Your task to perform on an android device: check battery use Image 0: 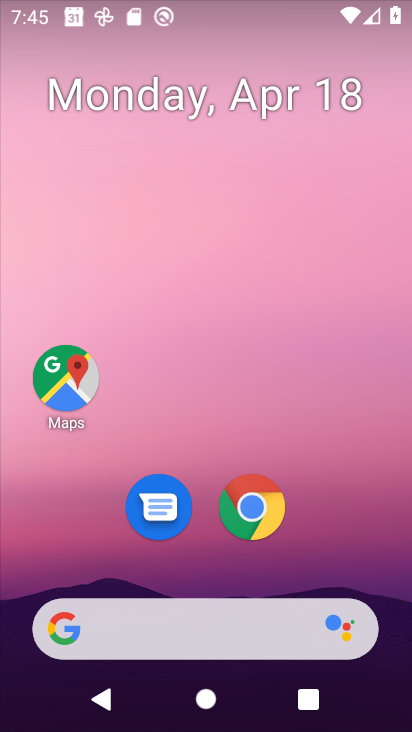
Step 0: drag from (3, 532) to (248, 117)
Your task to perform on an android device: check battery use Image 1: 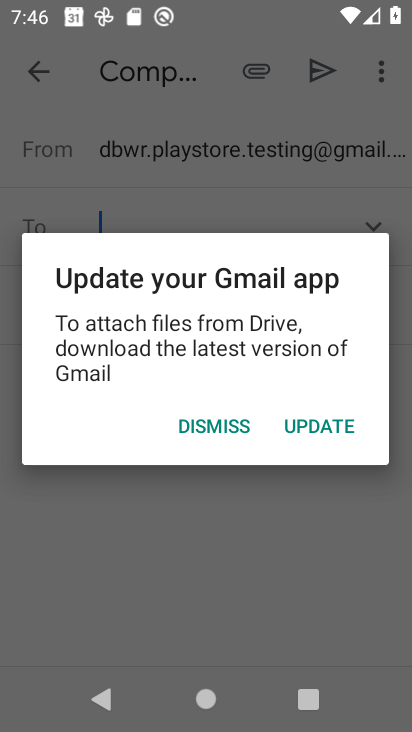
Step 1: press home button
Your task to perform on an android device: check battery use Image 2: 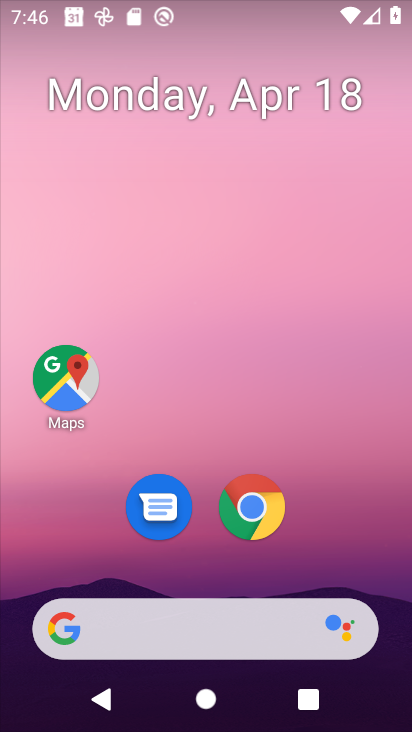
Step 2: drag from (12, 521) to (237, 18)
Your task to perform on an android device: check battery use Image 3: 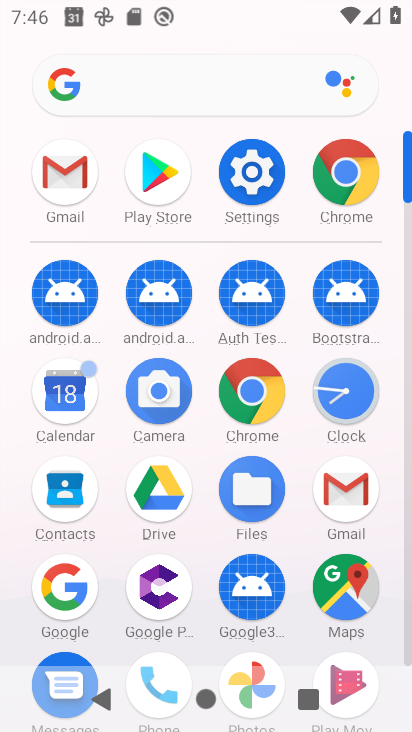
Step 3: click (251, 167)
Your task to perform on an android device: check battery use Image 4: 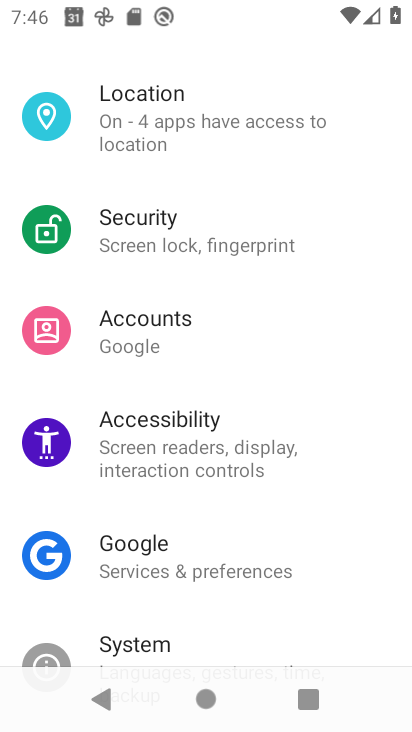
Step 4: drag from (252, 164) to (229, 606)
Your task to perform on an android device: check battery use Image 5: 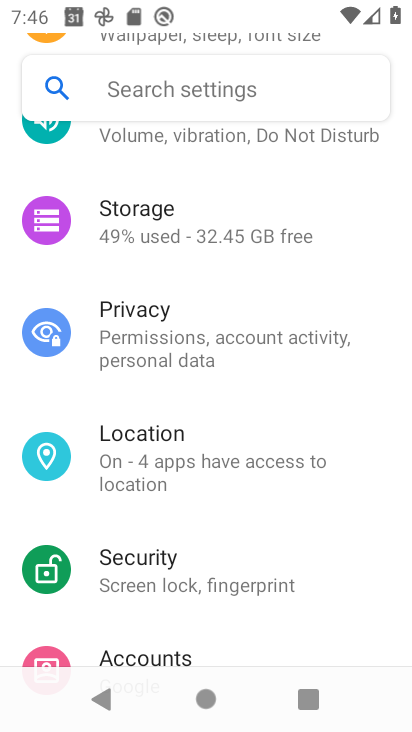
Step 5: drag from (213, 222) to (204, 589)
Your task to perform on an android device: check battery use Image 6: 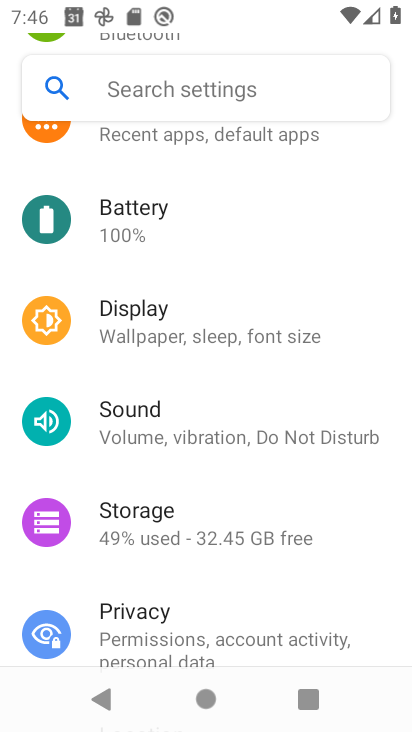
Step 6: click (189, 230)
Your task to perform on an android device: check battery use Image 7: 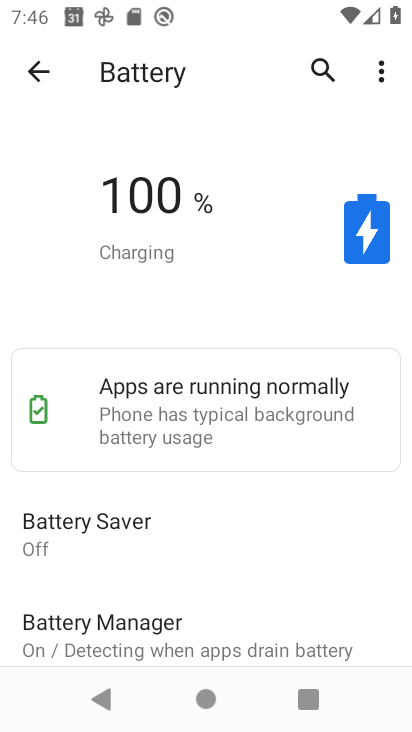
Step 7: click (388, 63)
Your task to perform on an android device: check battery use Image 8: 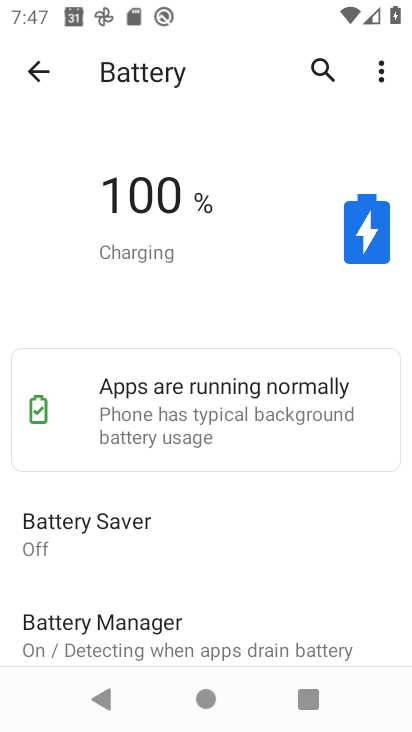
Step 8: click (379, 69)
Your task to perform on an android device: check battery use Image 9: 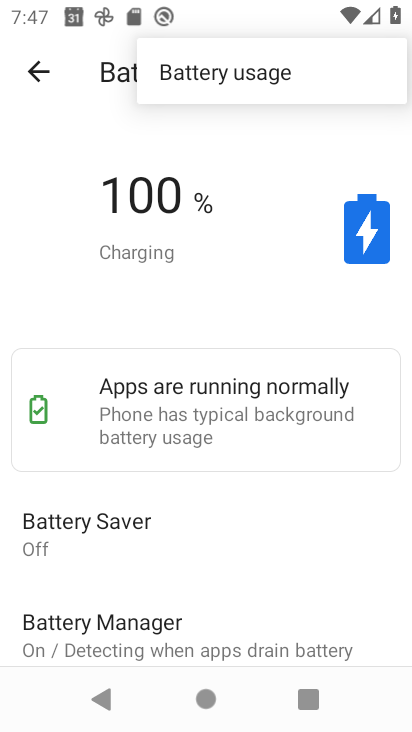
Step 9: click (238, 65)
Your task to perform on an android device: check battery use Image 10: 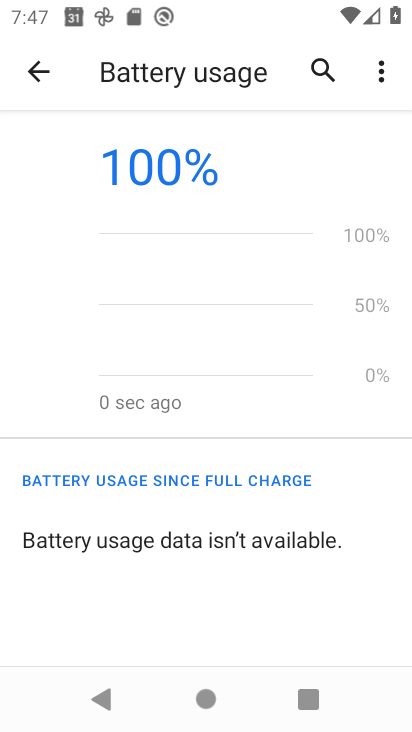
Step 10: task complete